Your task to perform on an android device: Search for pizza restaurants on Maps Image 0: 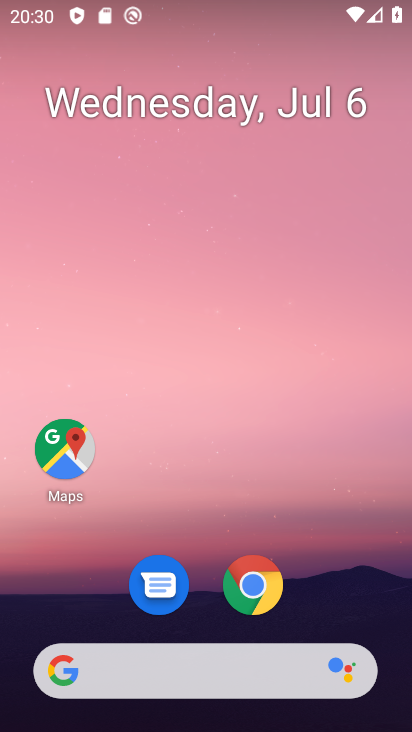
Step 0: click (57, 460)
Your task to perform on an android device: Search for pizza restaurants on Maps Image 1: 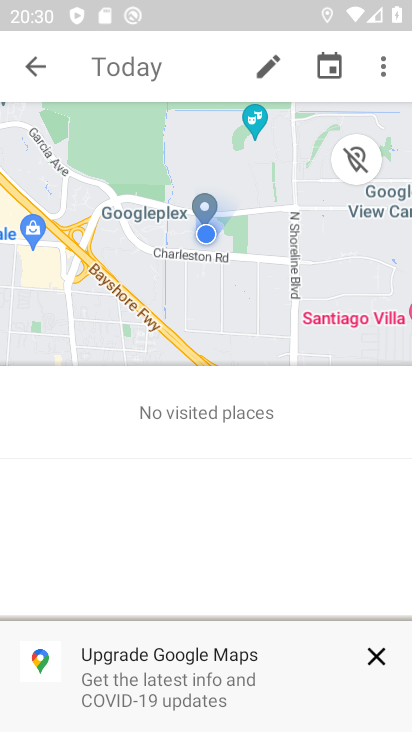
Step 1: click (34, 59)
Your task to perform on an android device: Search for pizza restaurants on Maps Image 2: 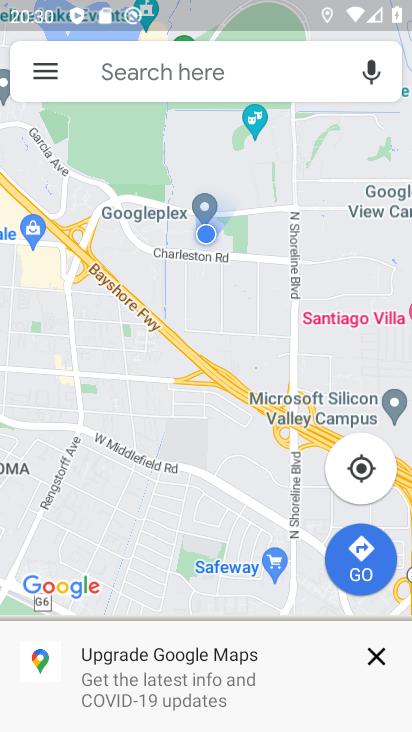
Step 2: click (135, 60)
Your task to perform on an android device: Search for pizza restaurants on Maps Image 3: 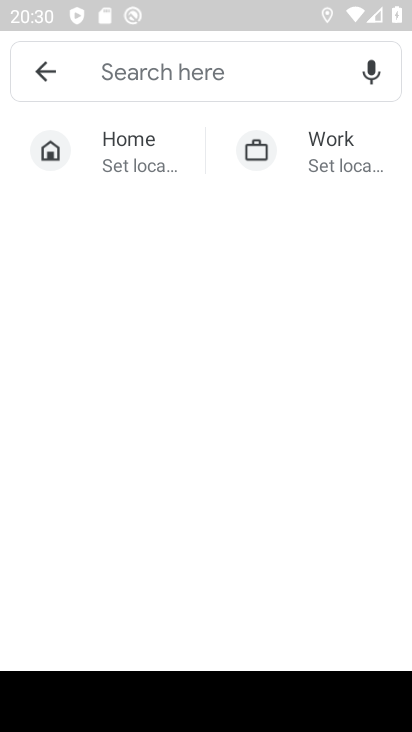
Step 3: type "pizza"
Your task to perform on an android device: Search for pizza restaurants on Maps Image 4: 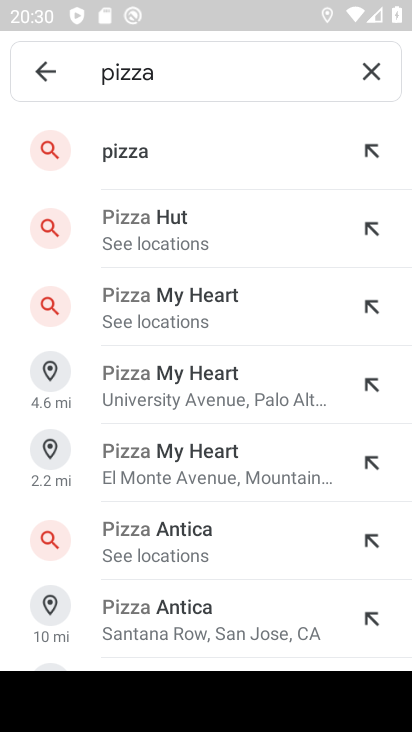
Step 4: click (137, 150)
Your task to perform on an android device: Search for pizza restaurants on Maps Image 5: 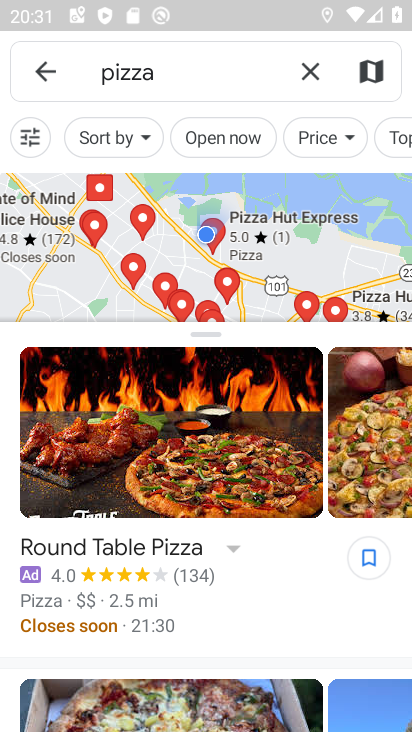
Step 5: task complete